Your task to perform on an android device: Open Google Maps and go to "Timeline" Image 0: 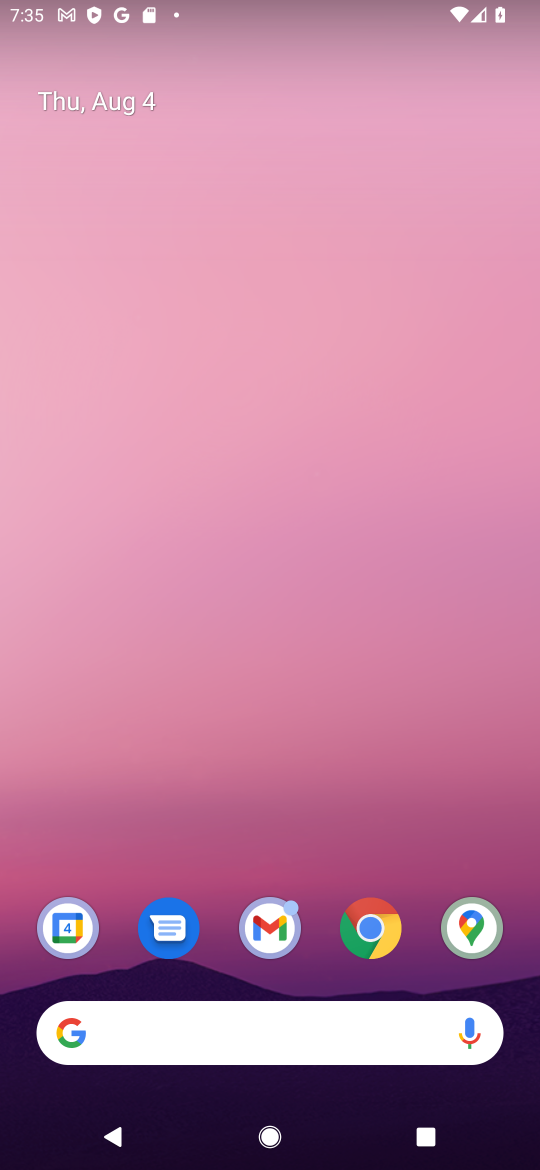
Step 0: drag from (271, 978) to (343, 65)
Your task to perform on an android device: Open Google Maps and go to "Timeline" Image 1: 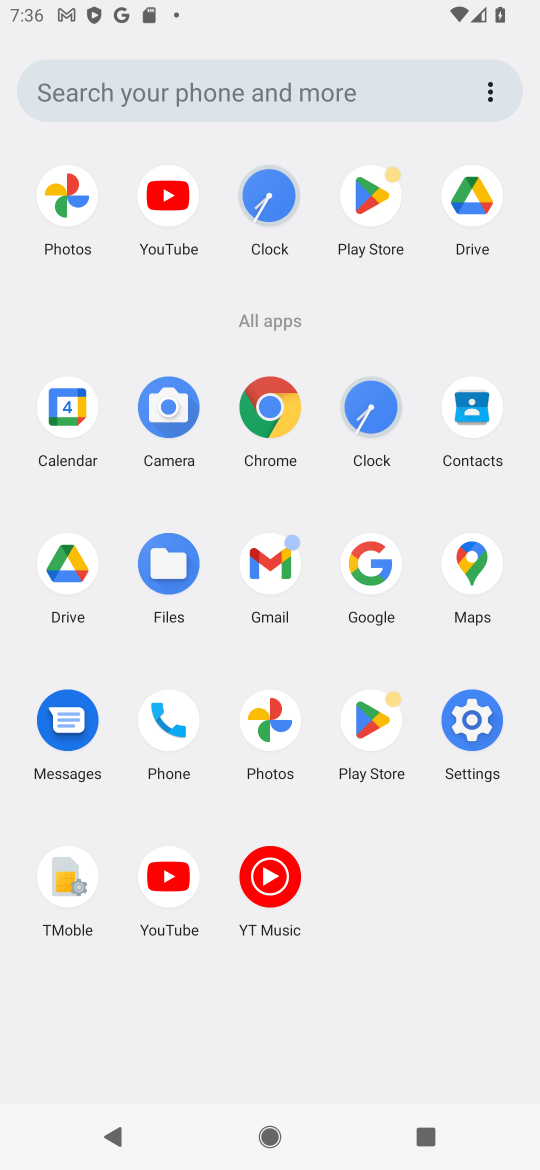
Step 1: click (472, 593)
Your task to perform on an android device: Open Google Maps and go to "Timeline" Image 2: 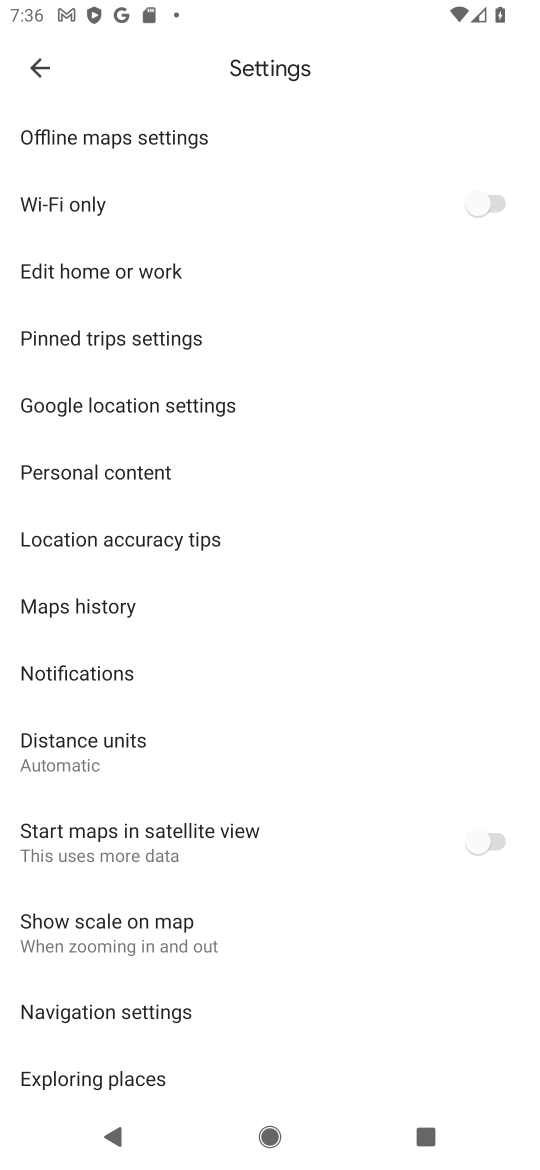
Step 2: task complete